Your task to perform on an android device: change the clock display to digital Image 0: 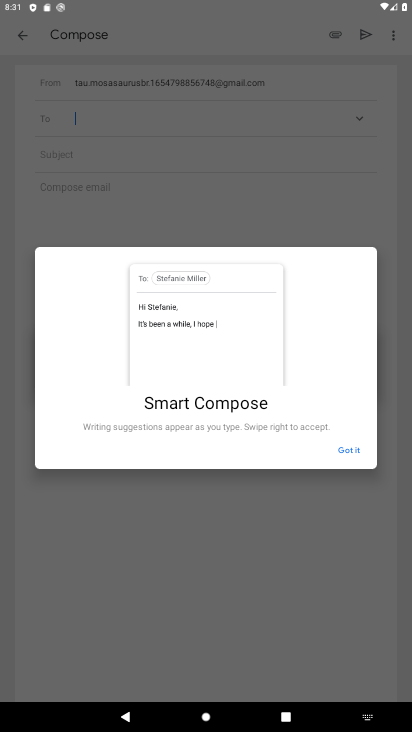
Step 0: press home button
Your task to perform on an android device: change the clock display to digital Image 1: 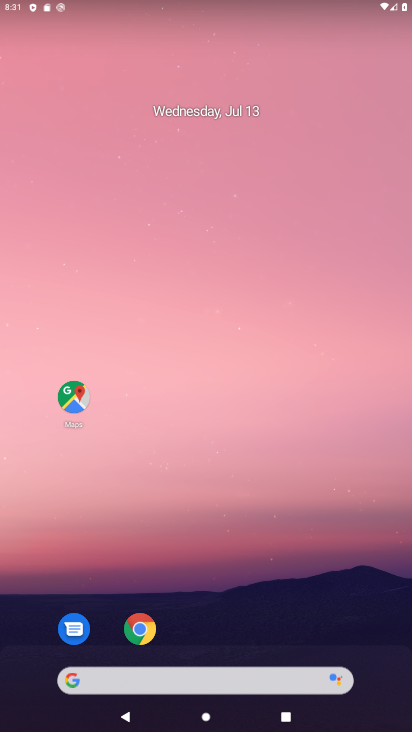
Step 1: drag from (183, 629) to (233, 166)
Your task to perform on an android device: change the clock display to digital Image 2: 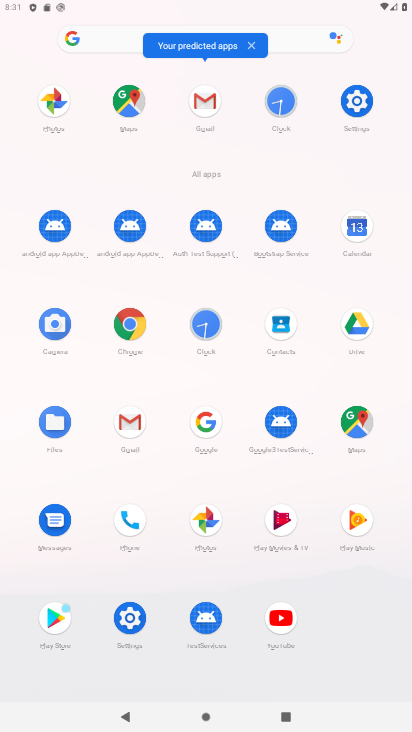
Step 2: click (206, 320)
Your task to perform on an android device: change the clock display to digital Image 3: 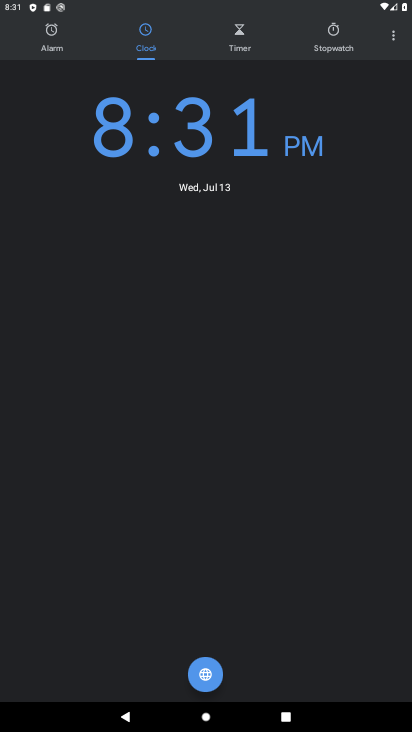
Step 3: click (390, 28)
Your task to perform on an android device: change the clock display to digital Image 4: 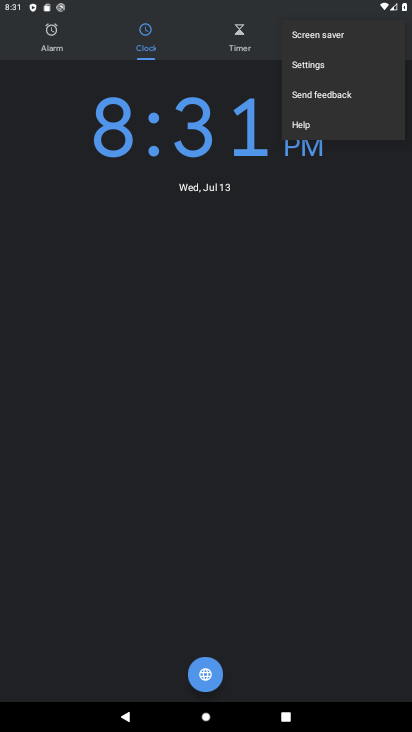
Step 4: click (318, 65)
Your task to perform on an android device: change the clock display to digital Image 5: 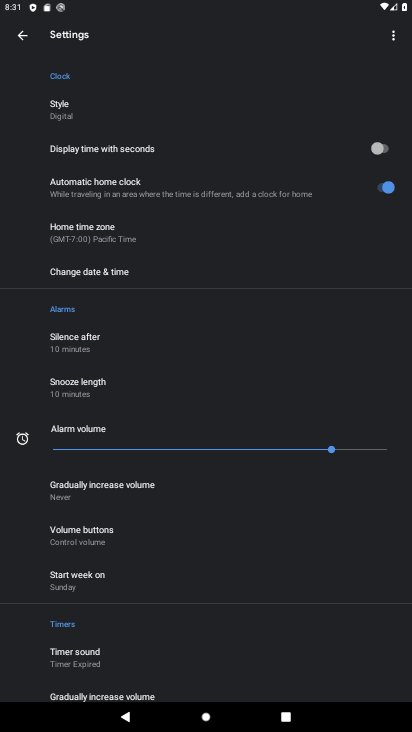
Step 5: click (71, 104)
Your task to perform on an android device: change the clock display to digital Image 6: 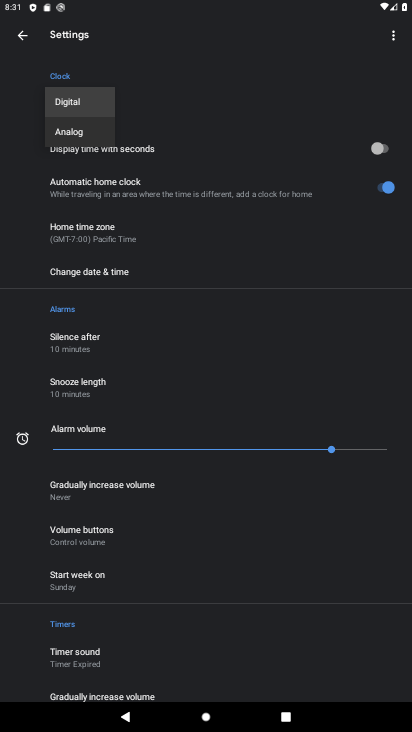
Step 6: click (57, 105)
Your task to perform on an android device: change the clock display to digital Image 7: 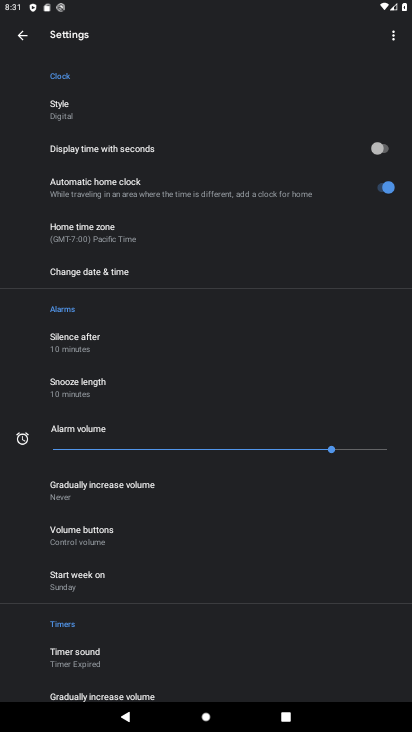
Step 7: task complete